Your task to perform on an android device: turn on the 12-hour format for clock Image 0: 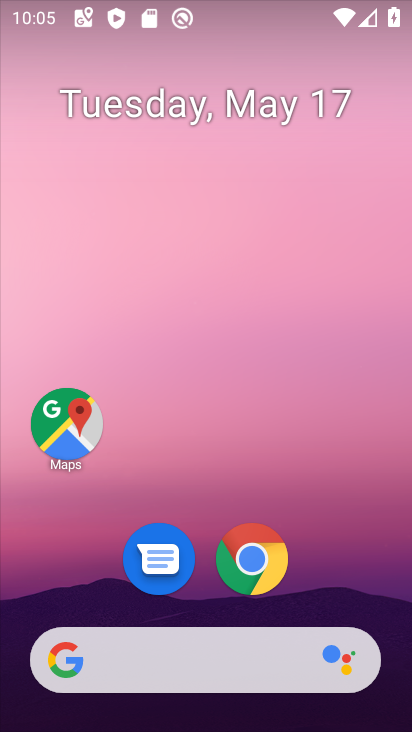
Step 0: drag from (225, 610) to (205, 12)
Your task to perform on an android device: turn on the 12-hour format for clock Image 1: 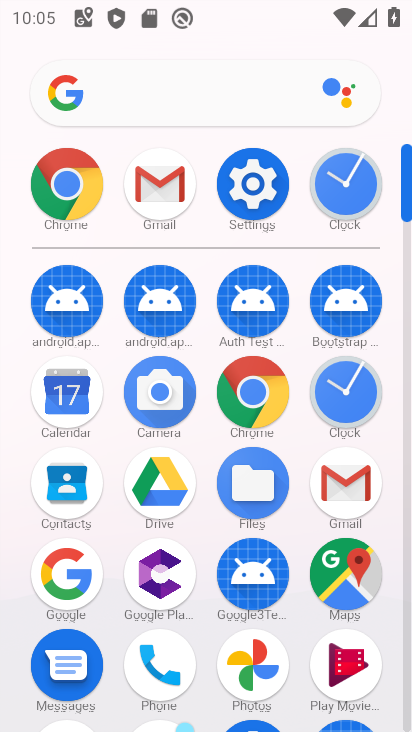
Step 1: click (360, 186)
Your task to perform on an android device: turn on the 12-hour format for clock Image 2: 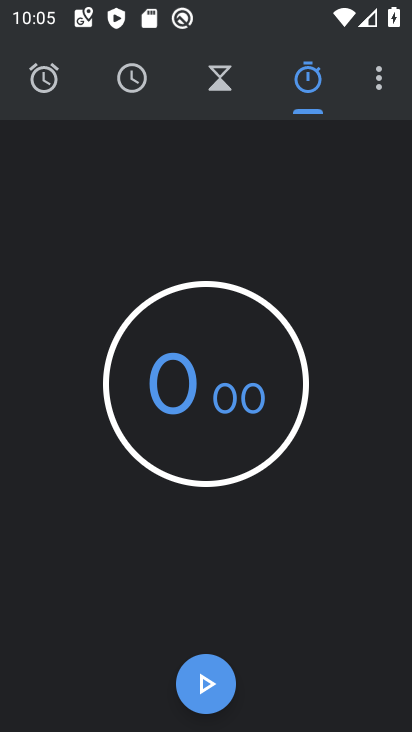
Step 2: click (381, 69)
Your task to perform on an android device: turn on the 12-hour format for clock Image 3: 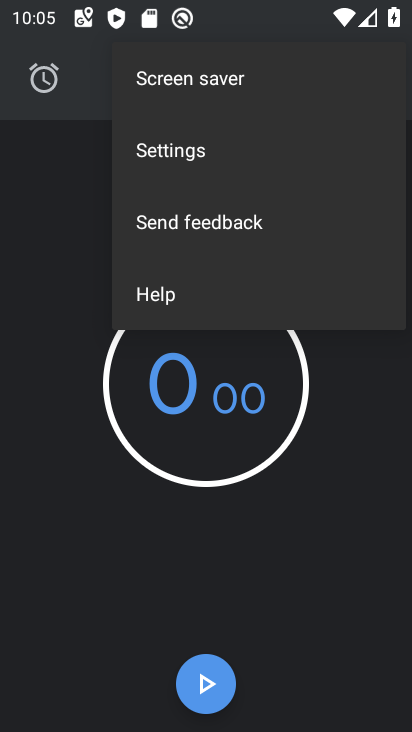
Step 3: click (225, 148)
Your task to perform on an android device: turn on the 12-hour format for clock Image 4: 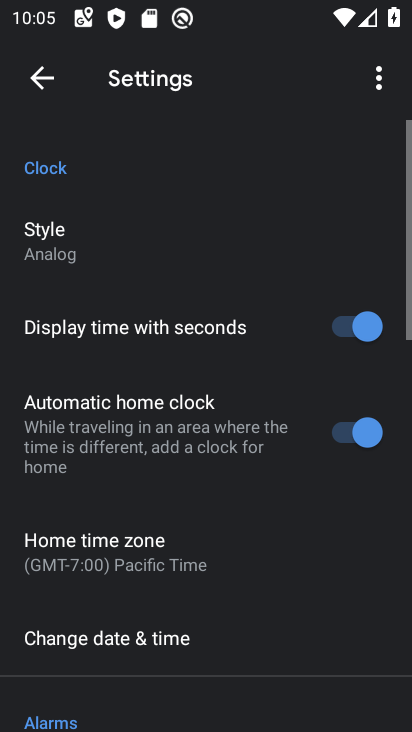
Step 4: click (237, 645)
Your task to perform on an android device: turn on the 12-hour format for clock Image 5: 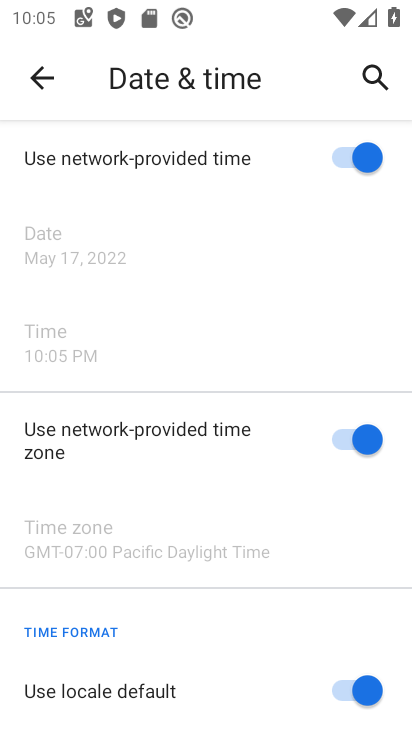
Step 5: task complete